Your task to perform on an android device: toggle notification dots Image 0: 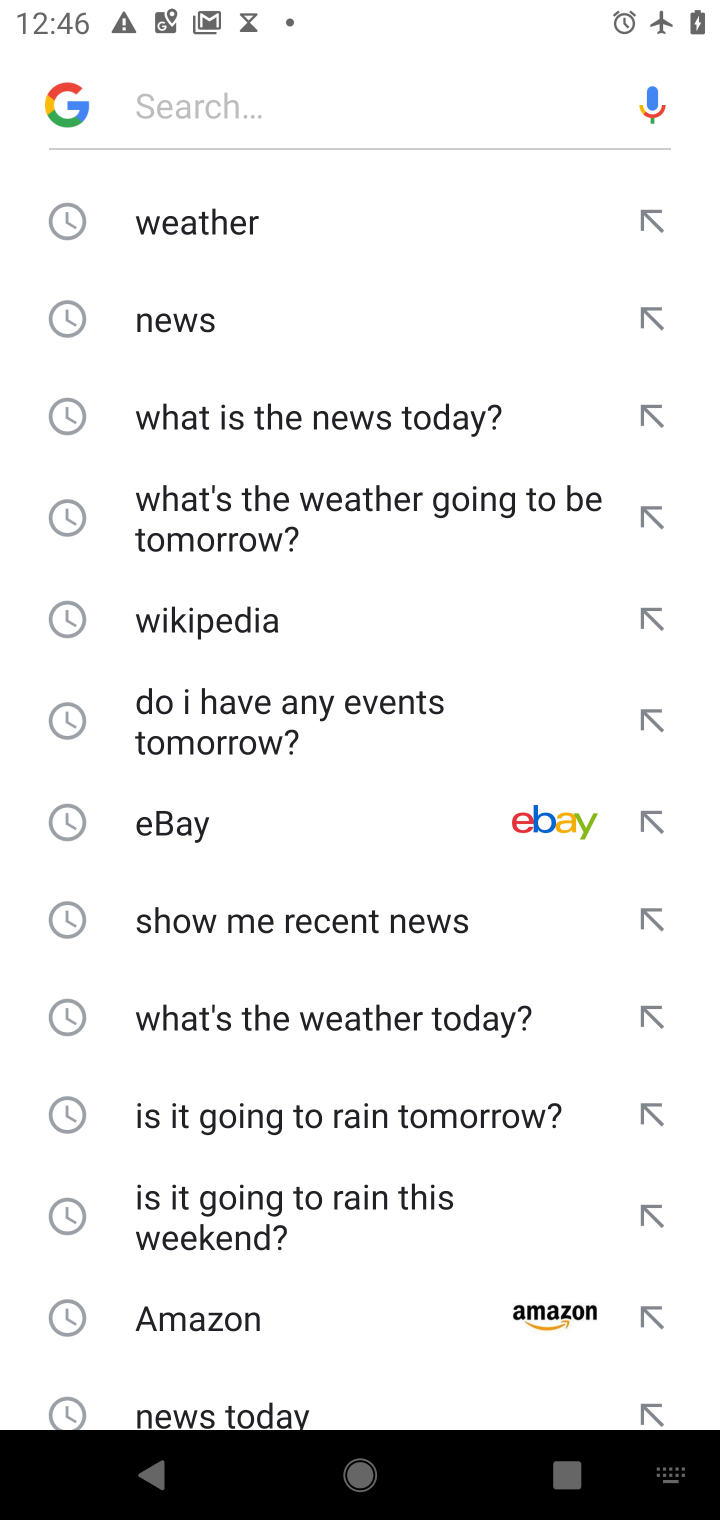
Step 0: press home button
Your task to perform on an android device: toggle notification dots Image 1: 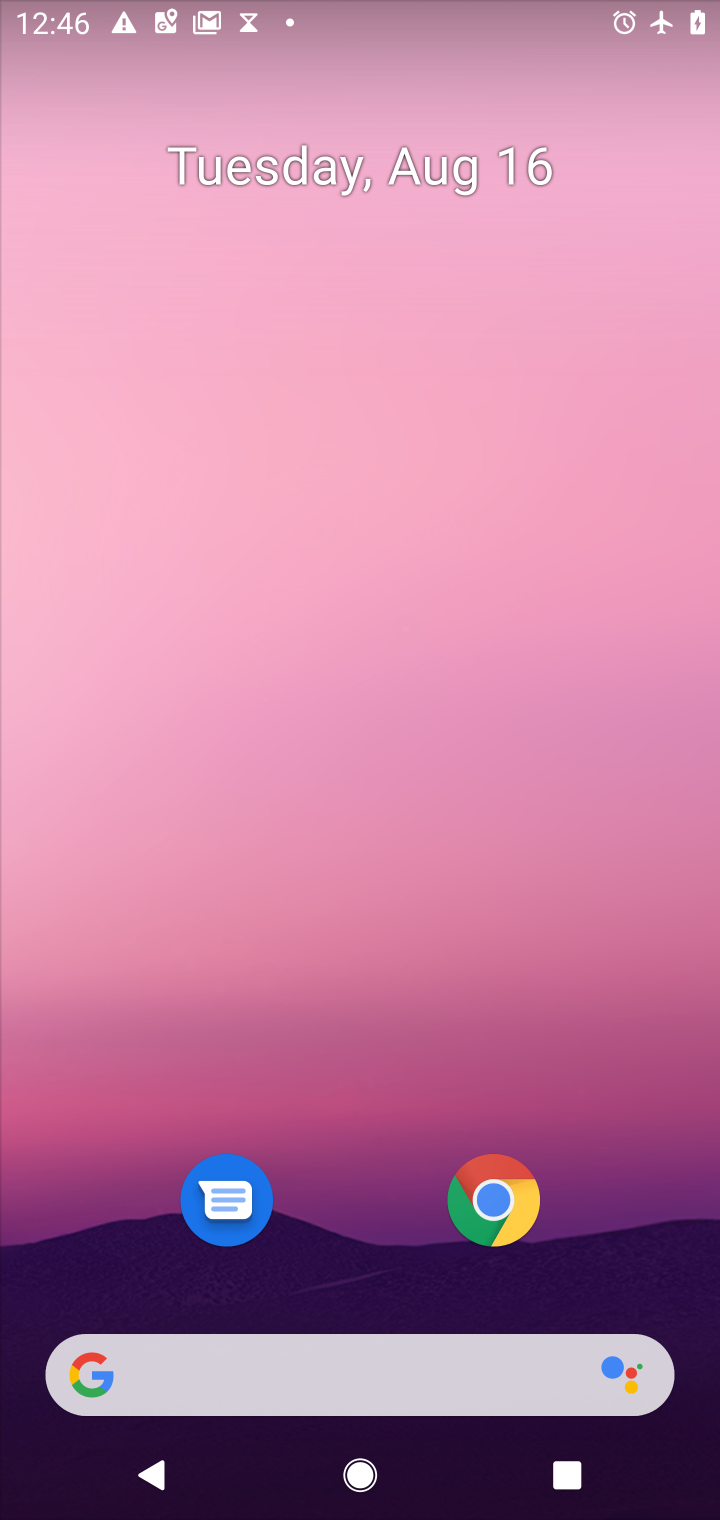
Step 1: drag from (359, 1210) to (325, 322)
Your task to perform on an android device: toggle notification dots Image 2: 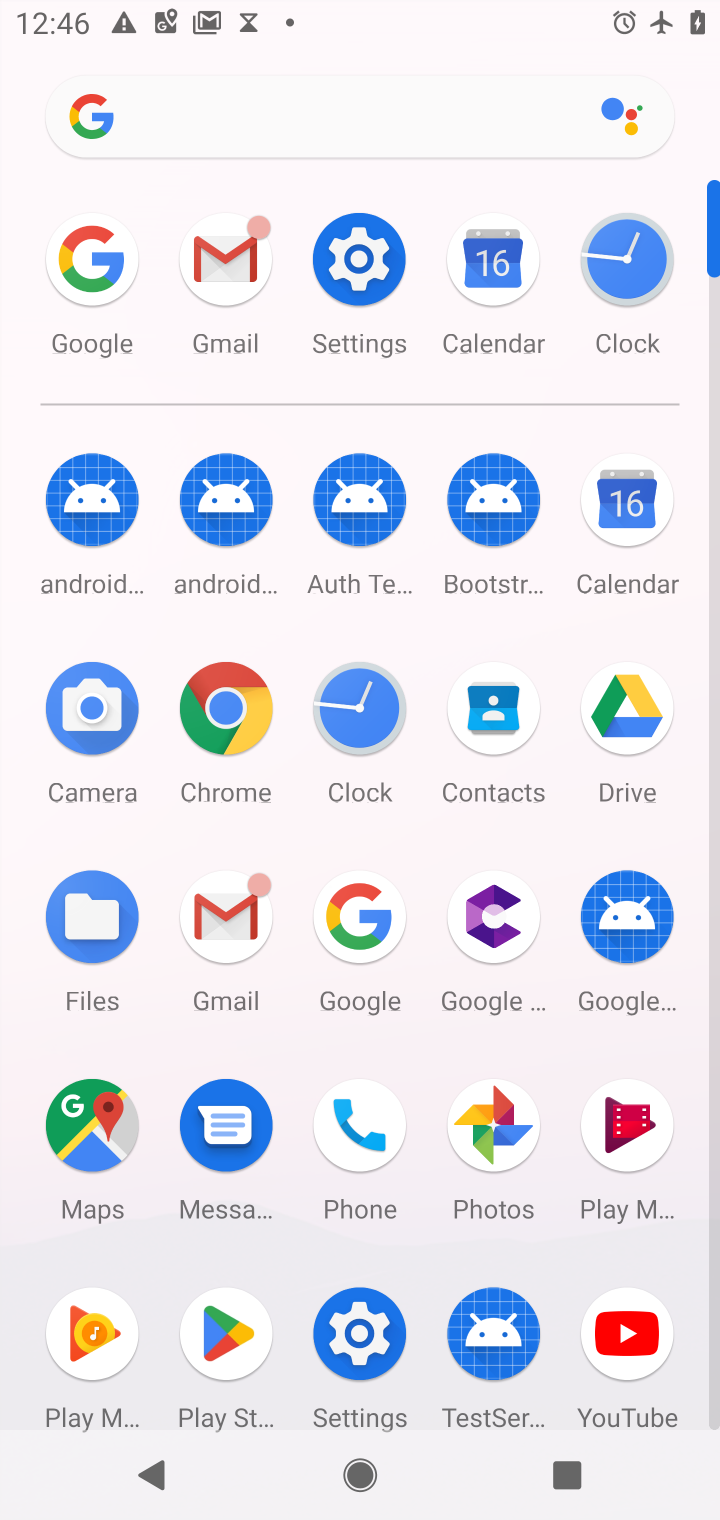
Step 2: click (328, 308)
Your task to perform on an android device: toggle notification dots Image 3: 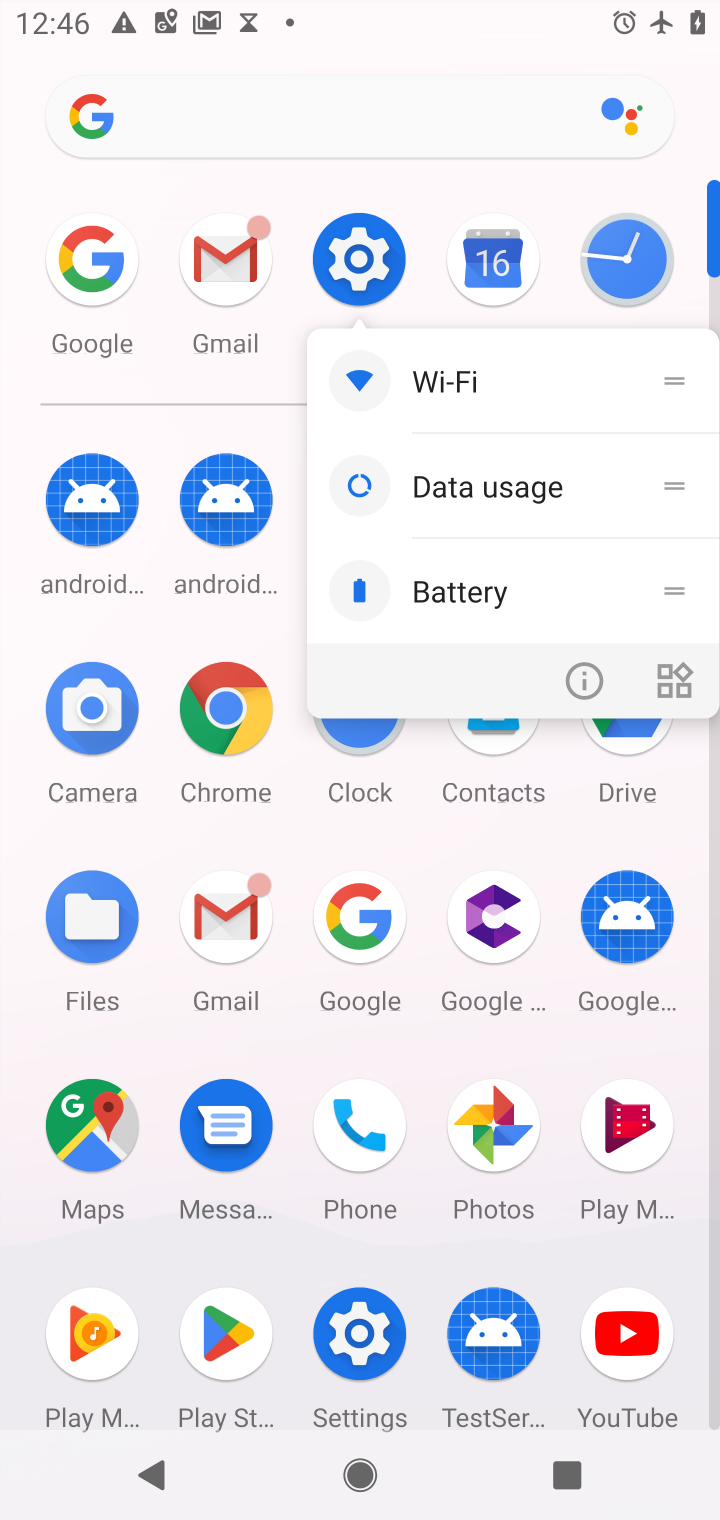
Step 3: click (340, 287)
Your task to perform on an android device: toggle notification dots Image 4: 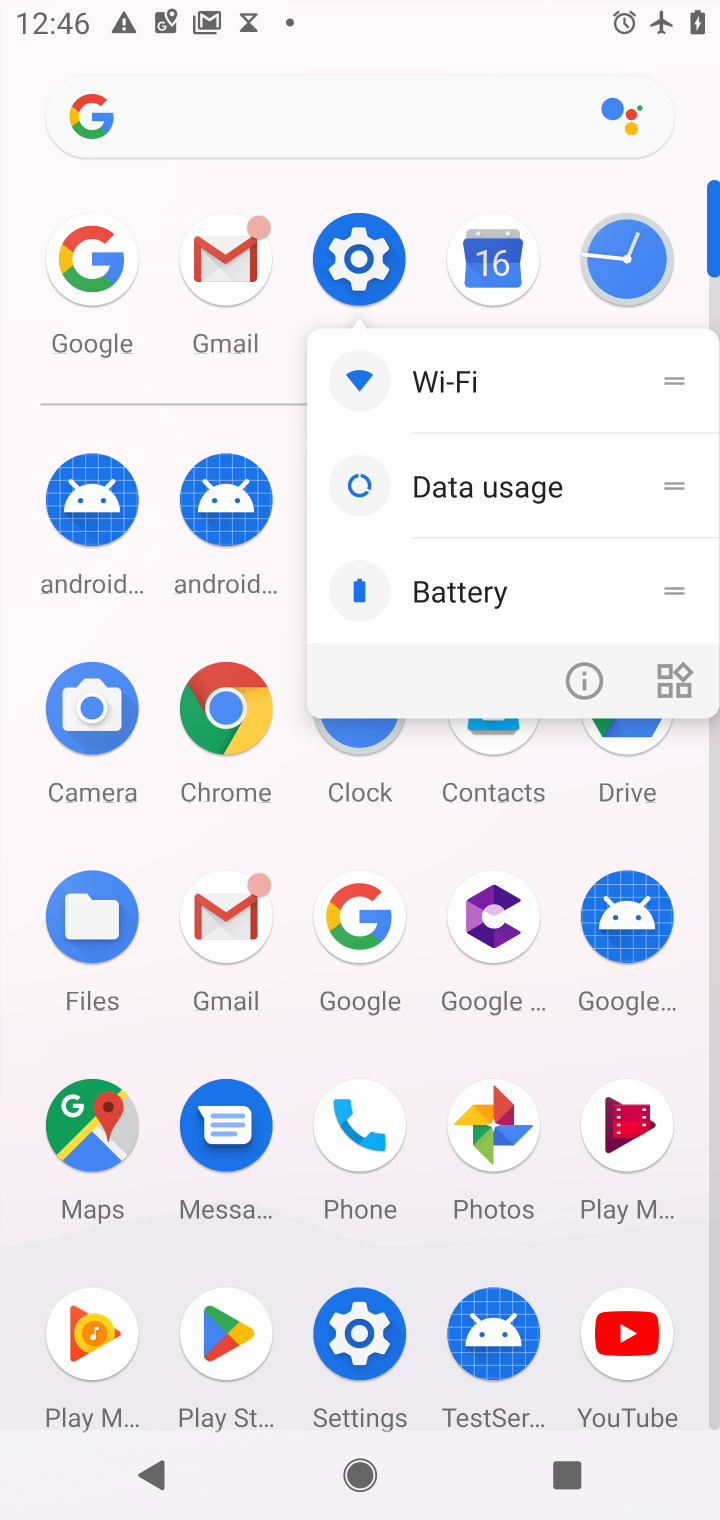
Step 4: click (343, 227)
Your task to perform on an android device: toggle notification dots Image 5: 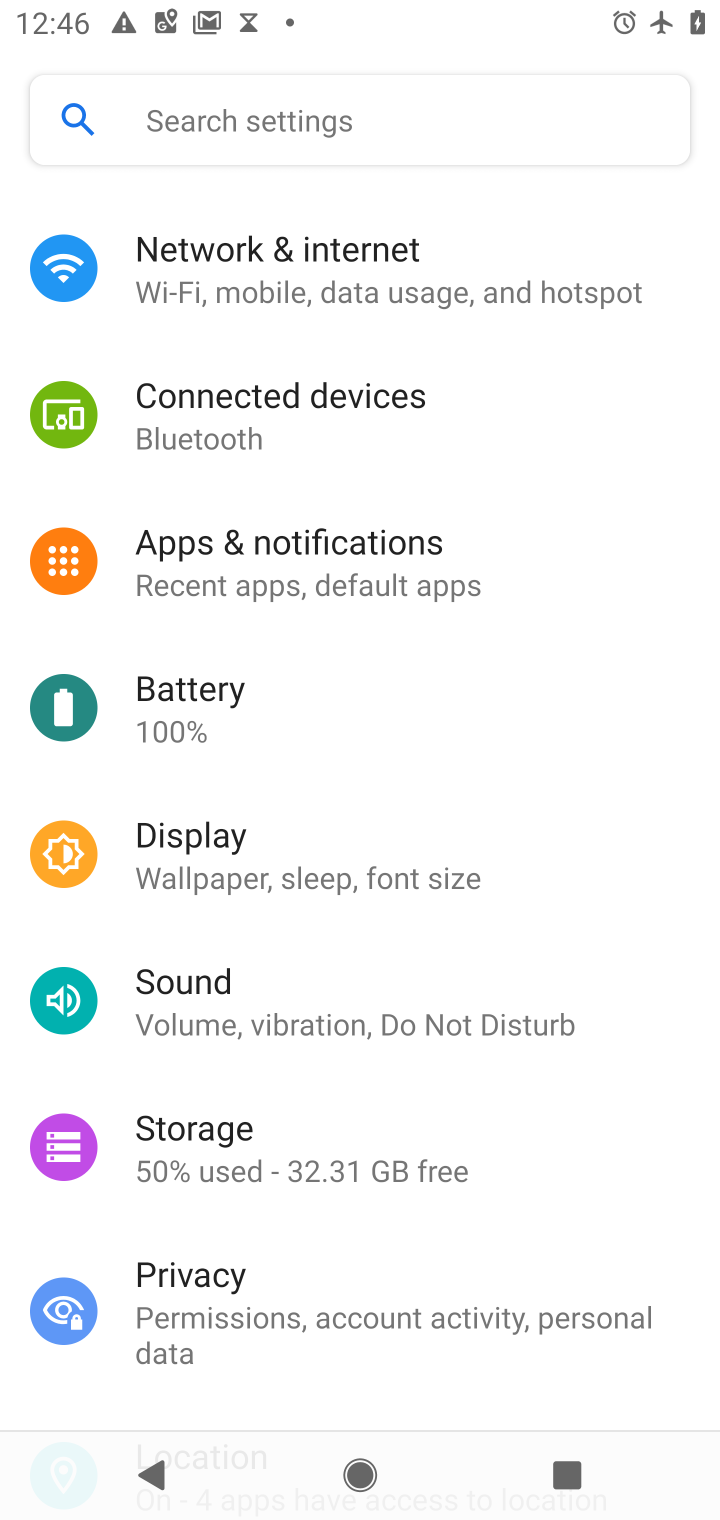
Step 5: click (332, 578)
Your task to perform on an android device: toggle notification dots Image 6: 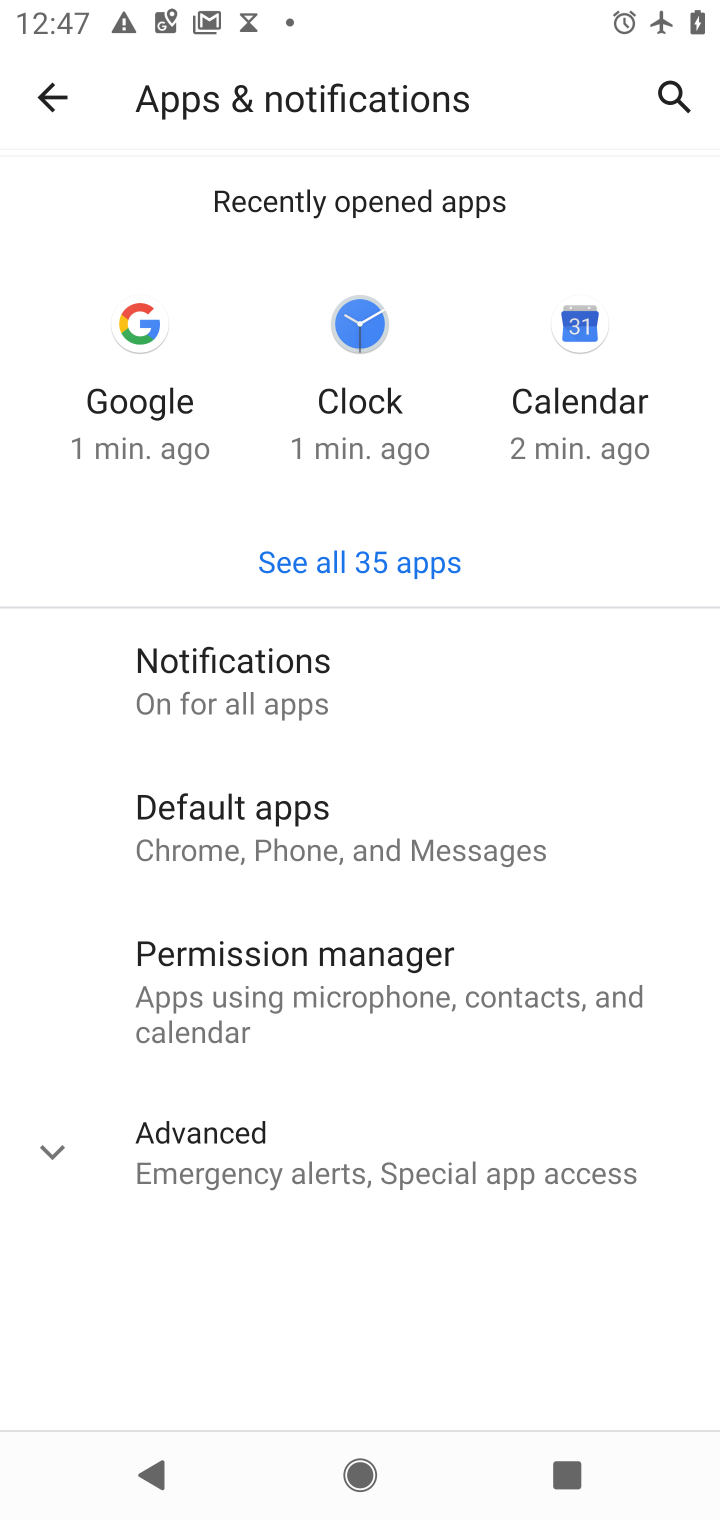
Step 6: click (237, 696)
Your task to perform on an android device: toggle notification dots Image 7: 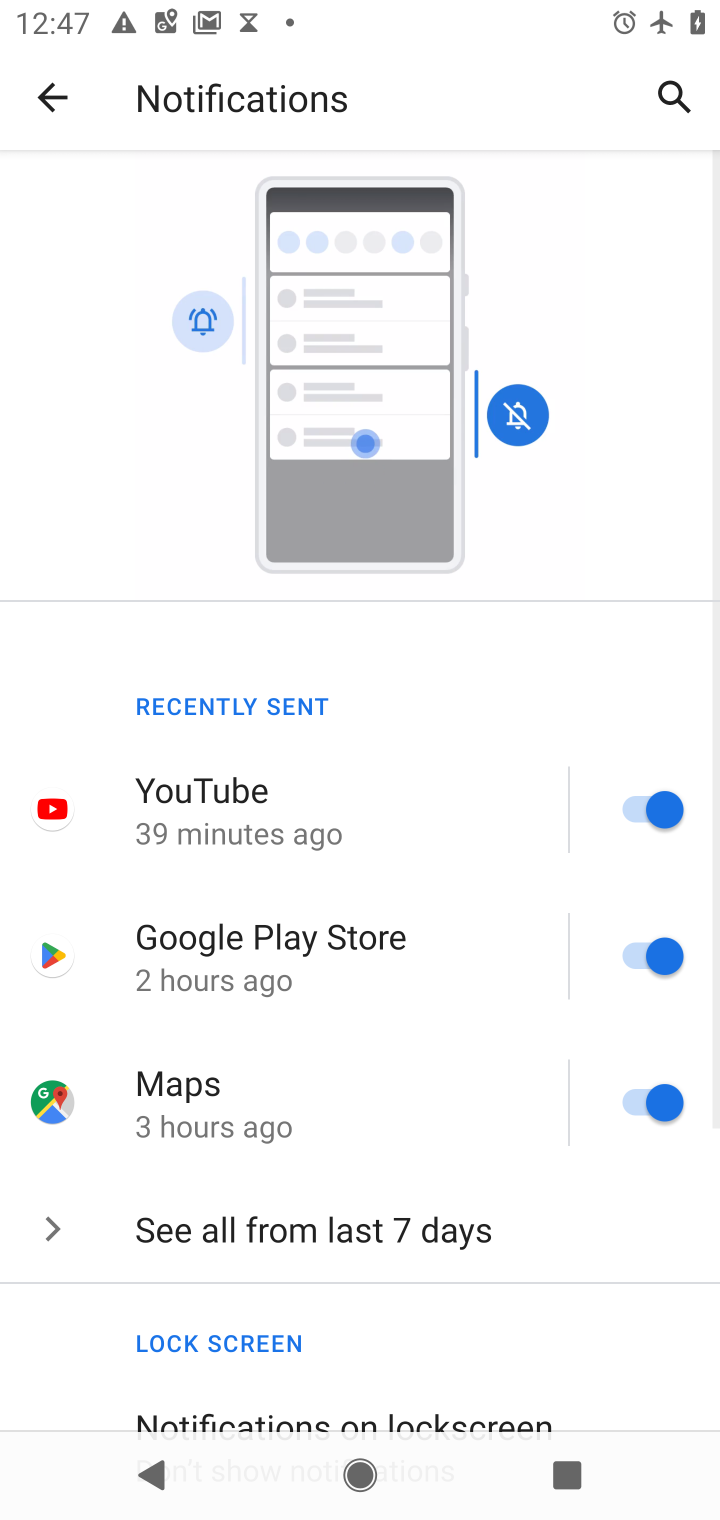
Step 7: drag from (456, 964) to (483, 622)
Your task to perform on an android device: toggle notification dots Image 8: 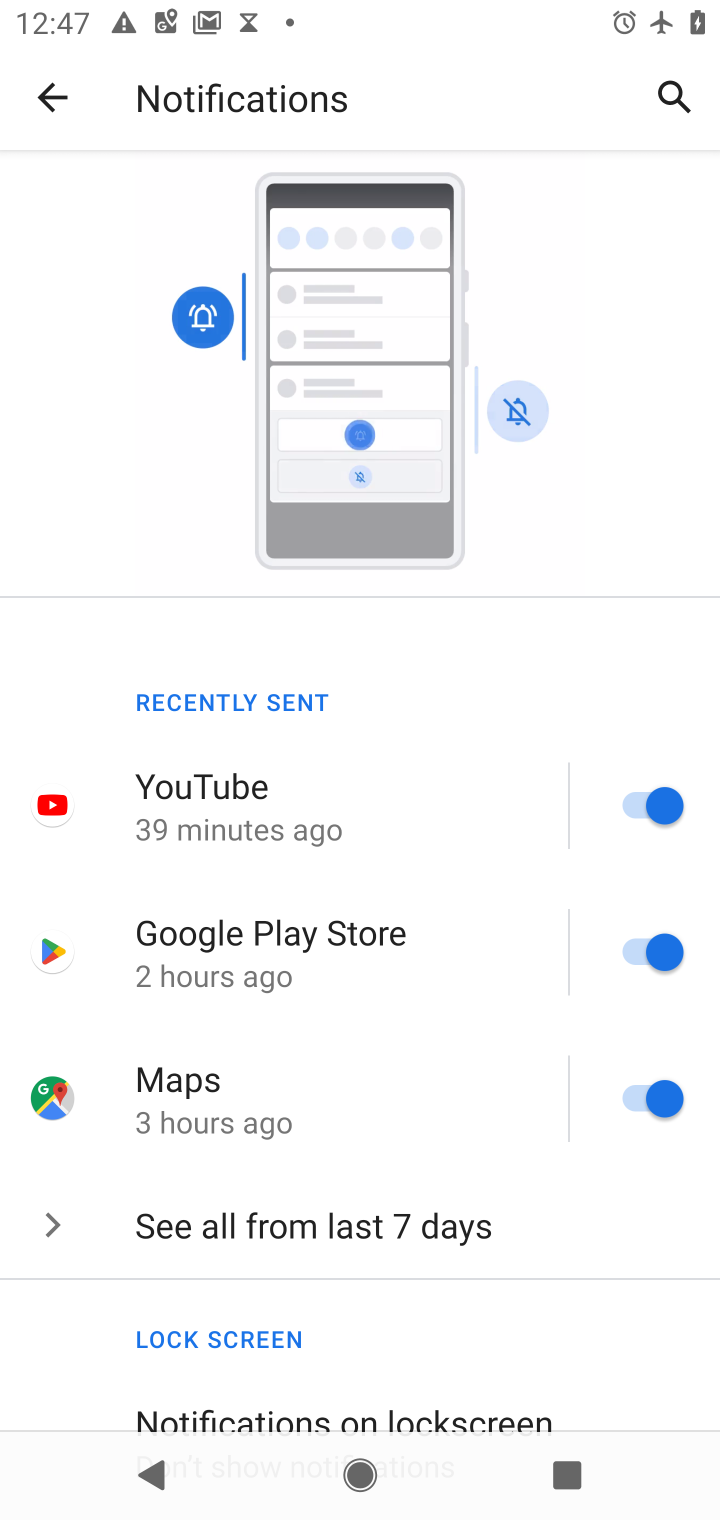
Step 8: drag from (455, 1115) to (496, 605)
Your task to perform on an android device: toggle notification dots Image 9: 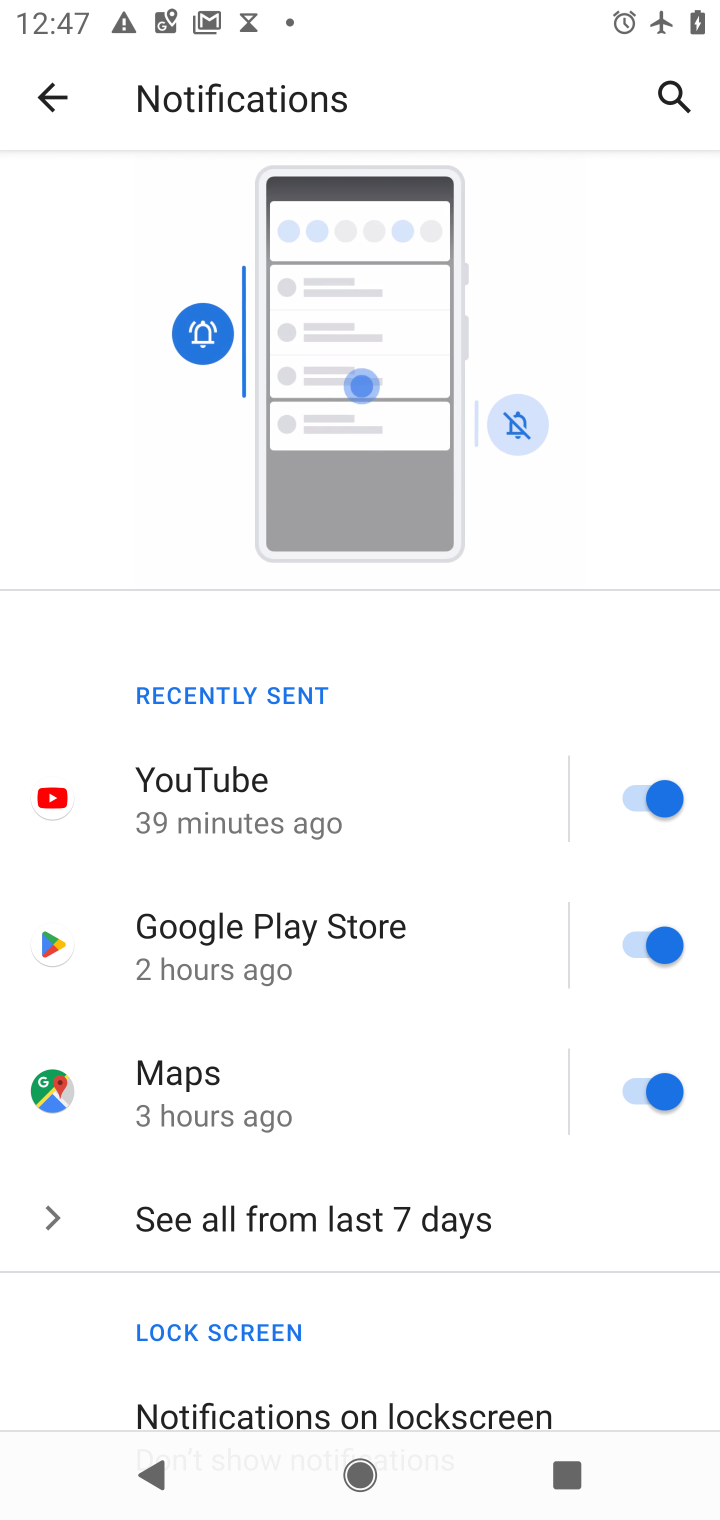
Step 9: drag from (474, 1204) to (480, 513)
Your task to perform on an android device: toggle notification dots Image 10: 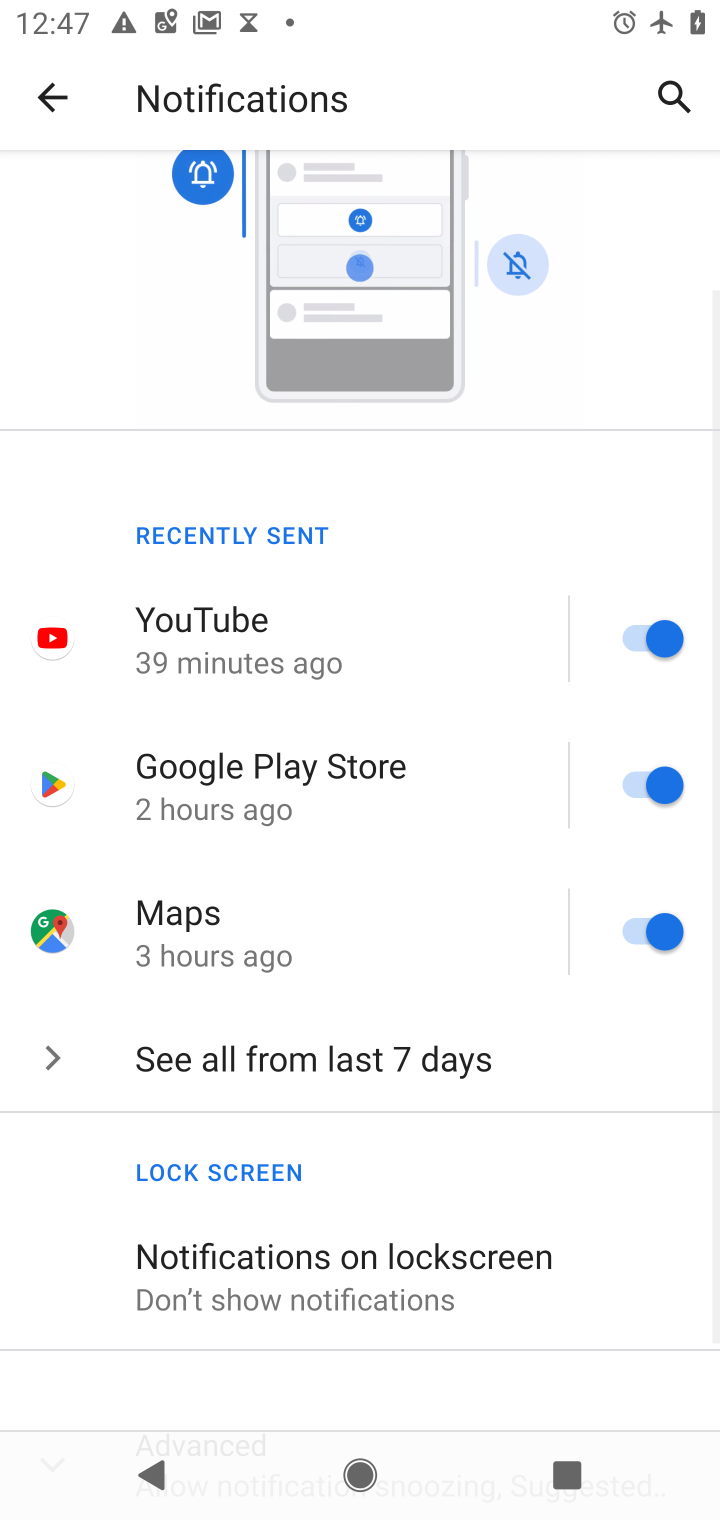
Step 10: drag from (456, 1352) to (453, 593)
Your task to perform on an android device: toggle notification dots Image 11: 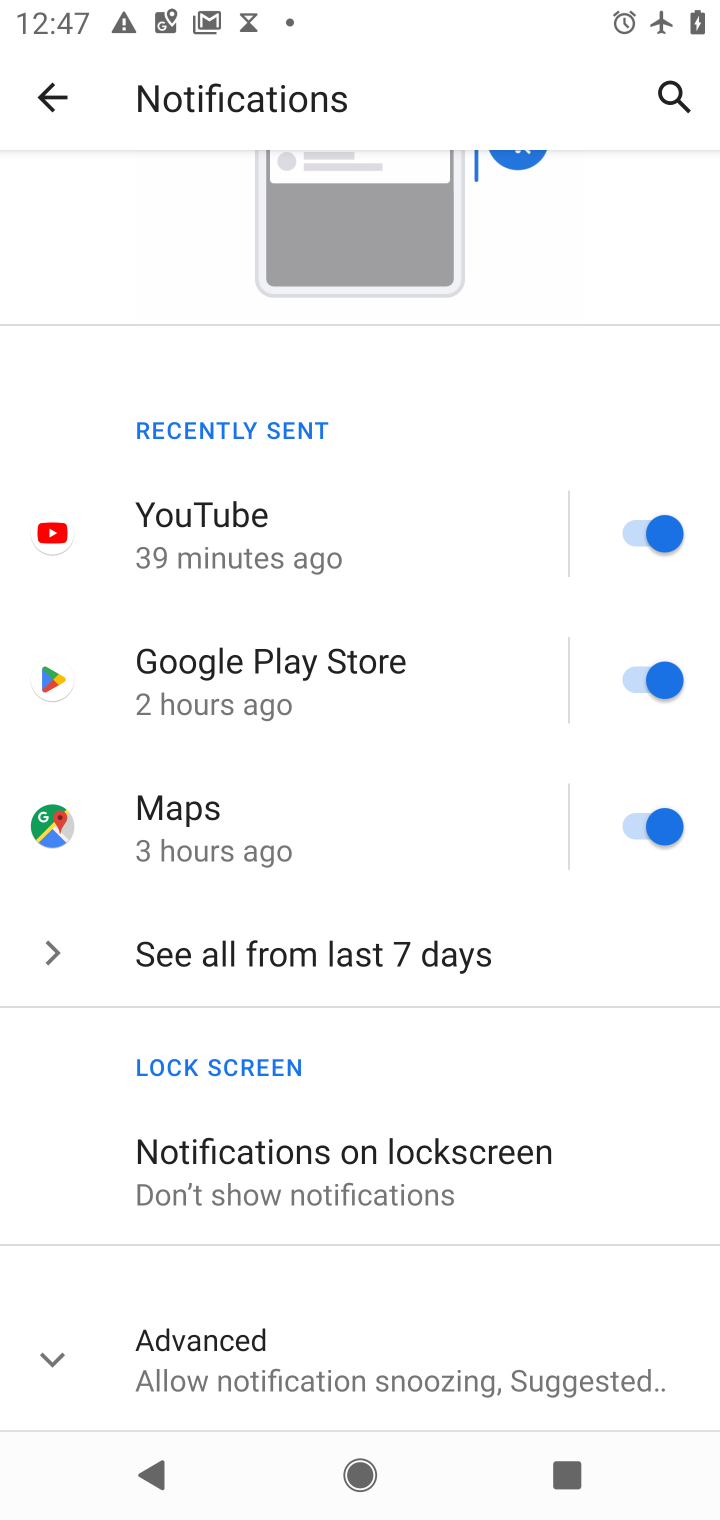
Step 11: click (419, 1382)
Your task to perform on an android device: toggle notification dots Image 12: 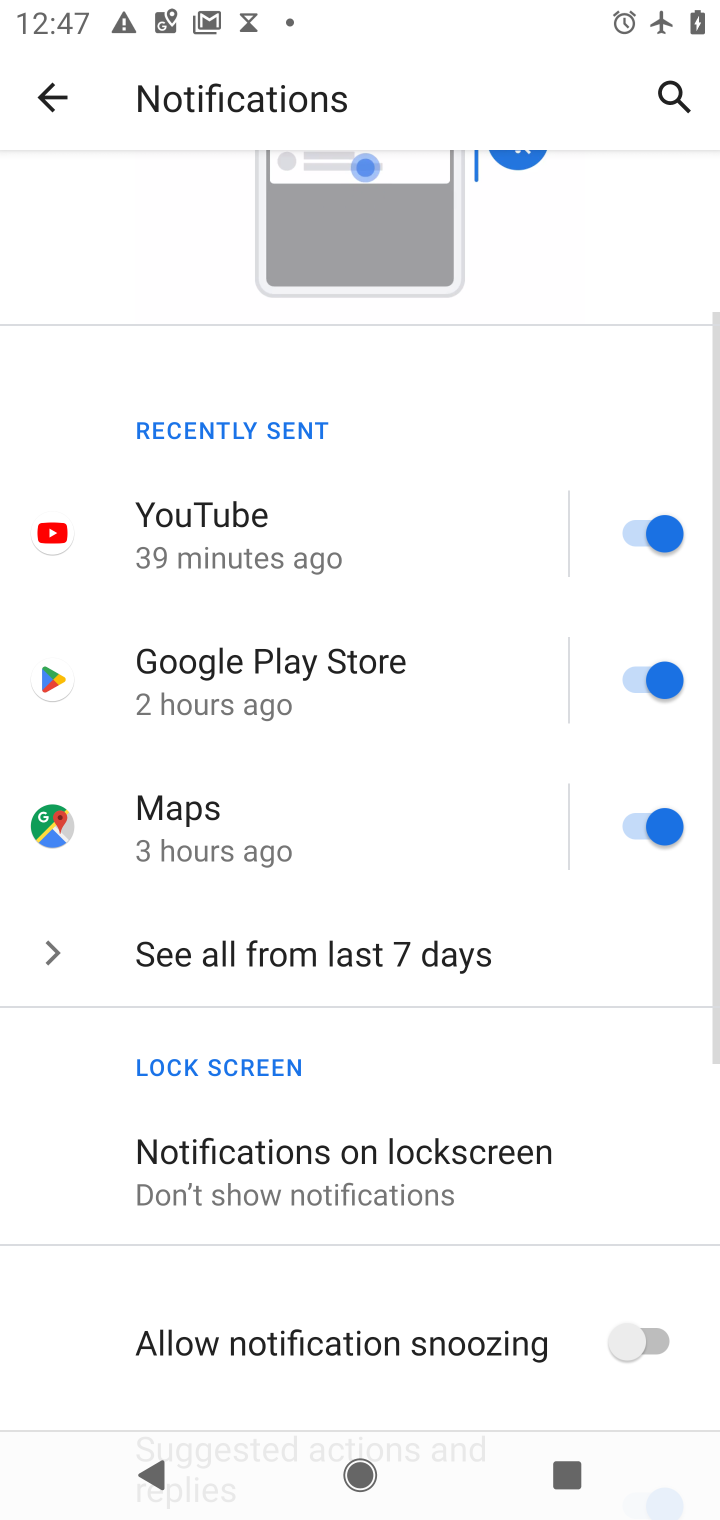
Step 12: drag from (395, 962) to (395, 408)
Your task to perform on an android device: toggle notification dots Image 13: 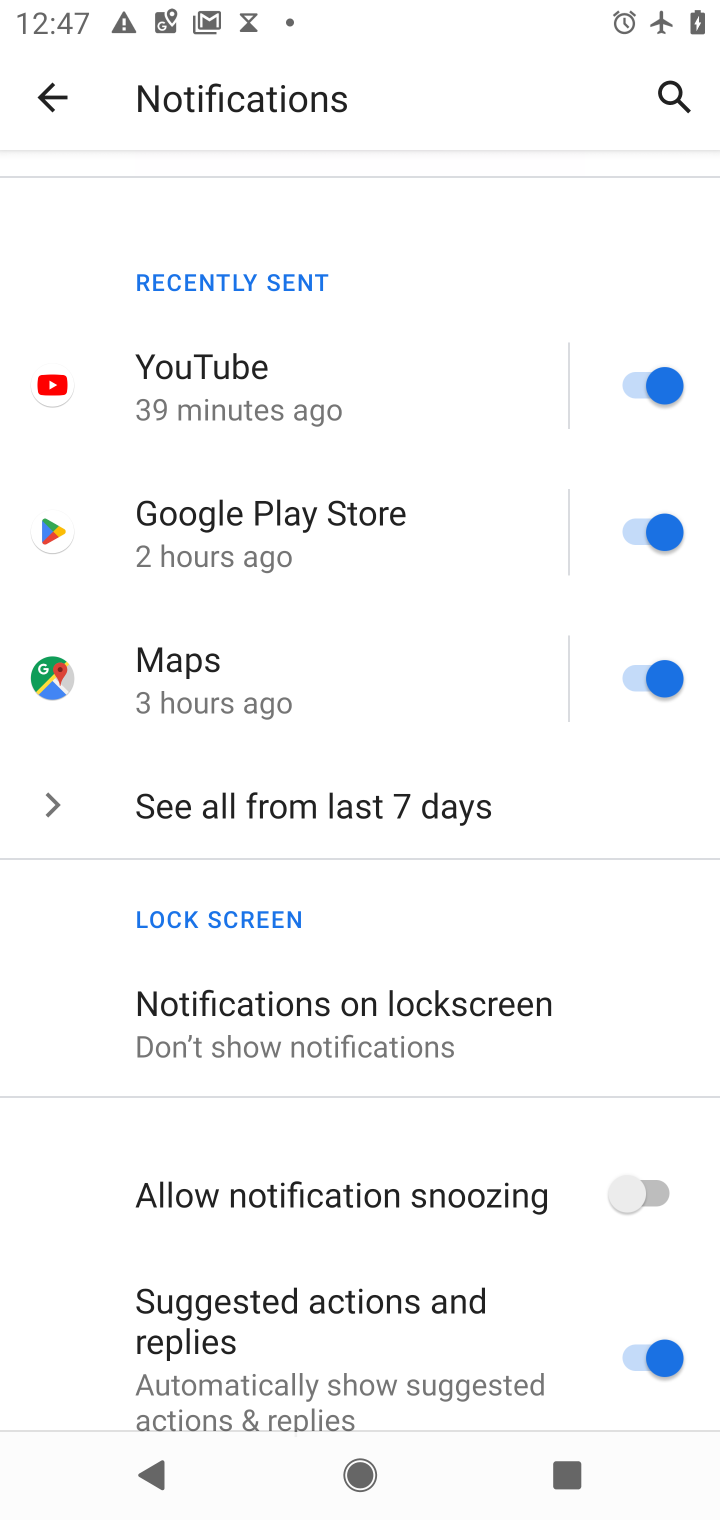
Step 13: drag from (568, 1316) to (548, 593)
Your task to perform on an android device: toggle notification dots Image 14: 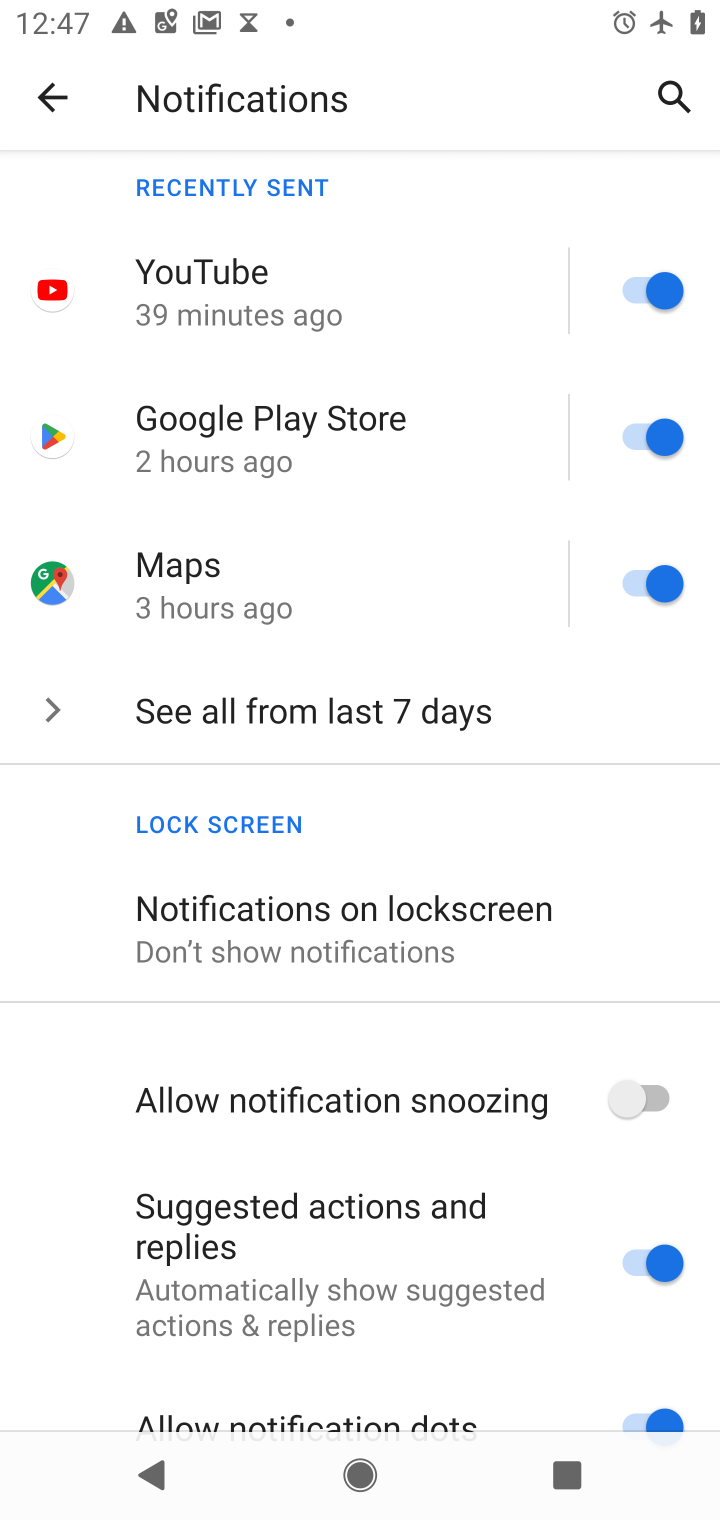
Step 14: drag from (581, 898) to (581, 673)
Your task to perform on an android device: toggle notification dots Image 15: 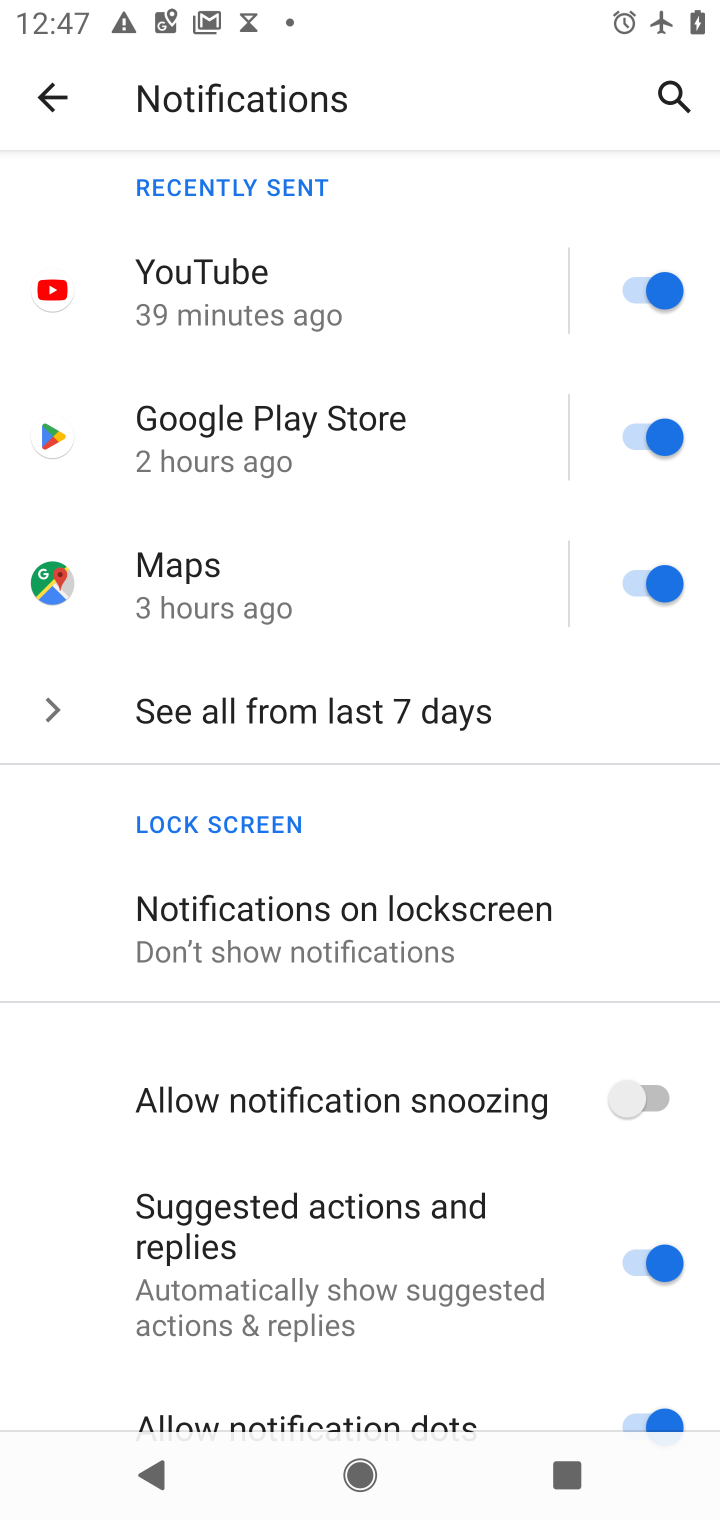
Step 15: drag from (465, 1315) to (437, 710)
Your task to perform on an android device: toggle notification dots Image 16: 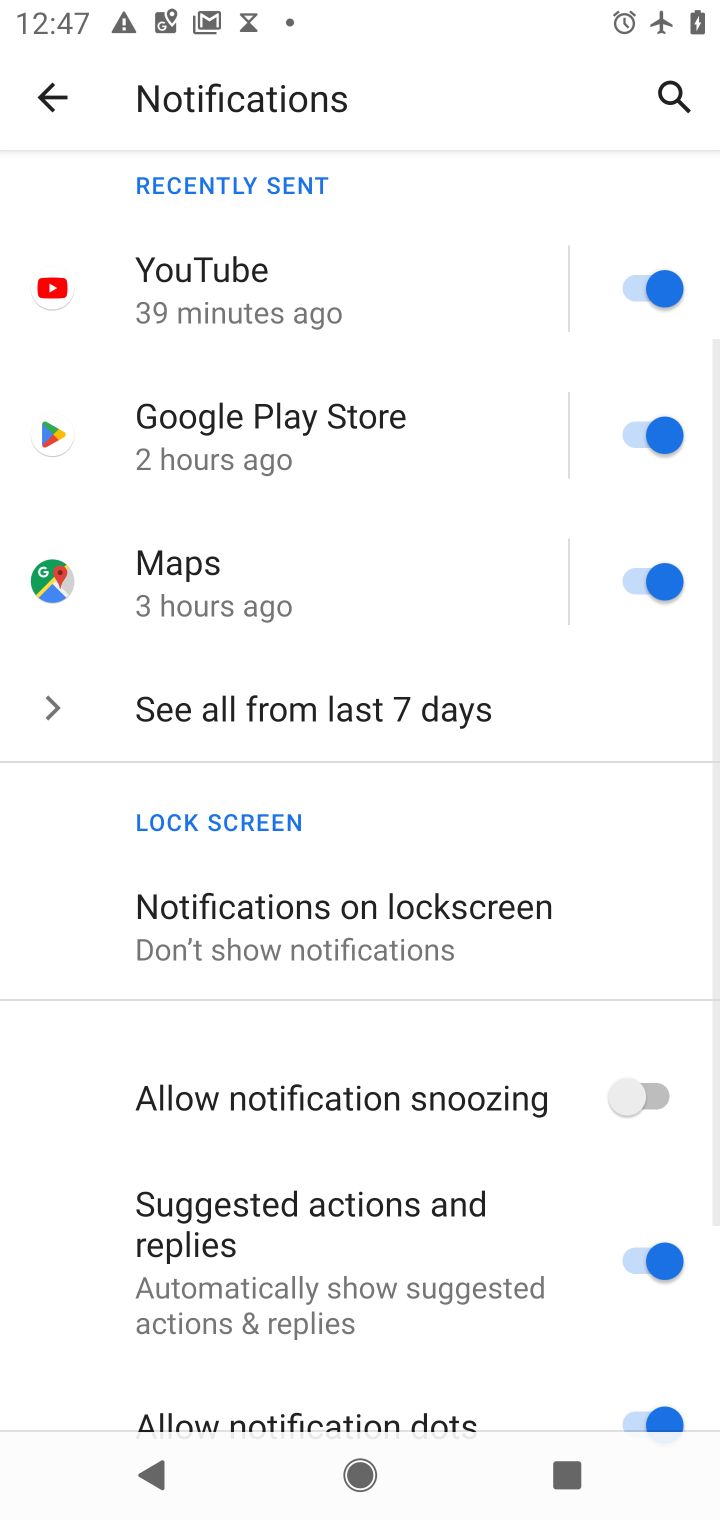
Step 16: drag from (505, 1358) to (464, 713)
Your task to perform on an android device: toggle notification dots Image 17: 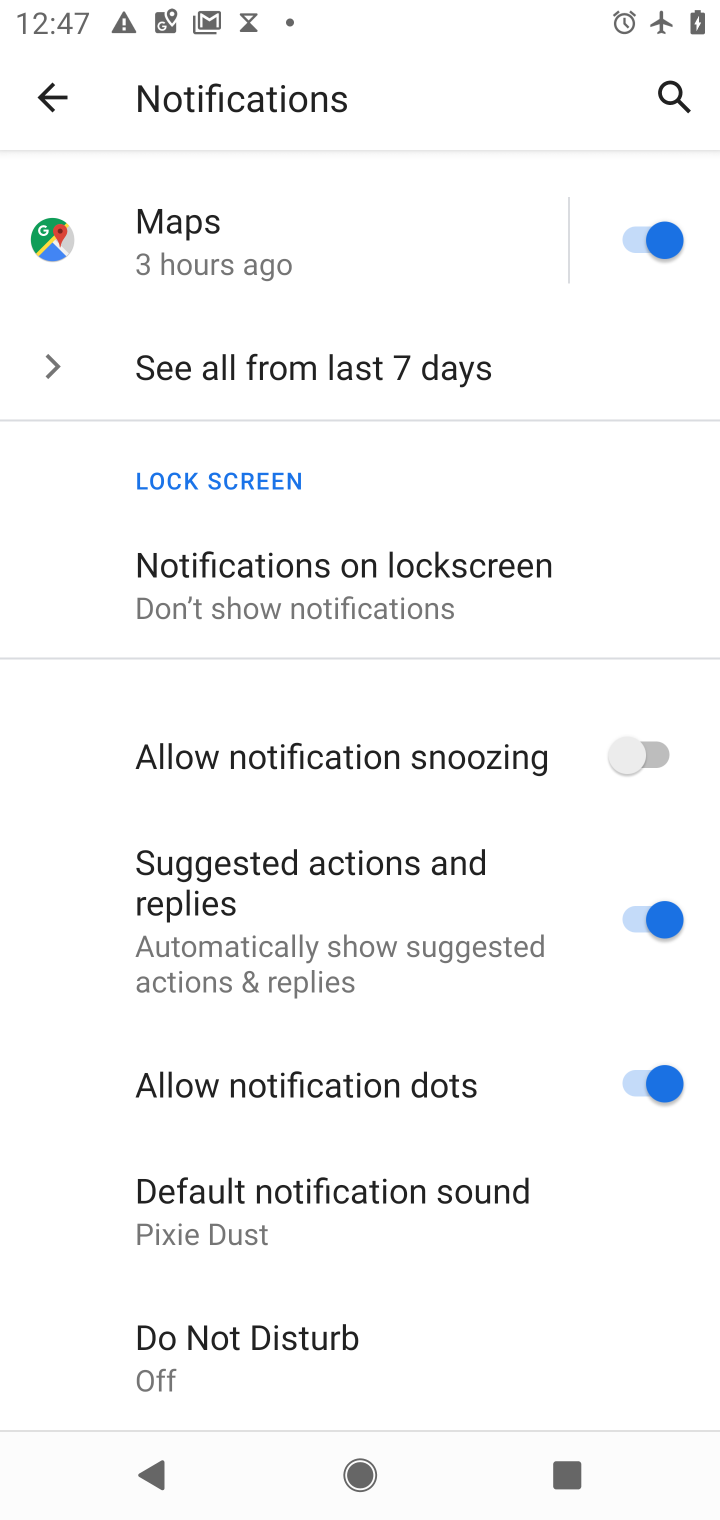
Step 17: click (637, 1090)
Your task to perform on an android device: toggle notification dots Image 18: 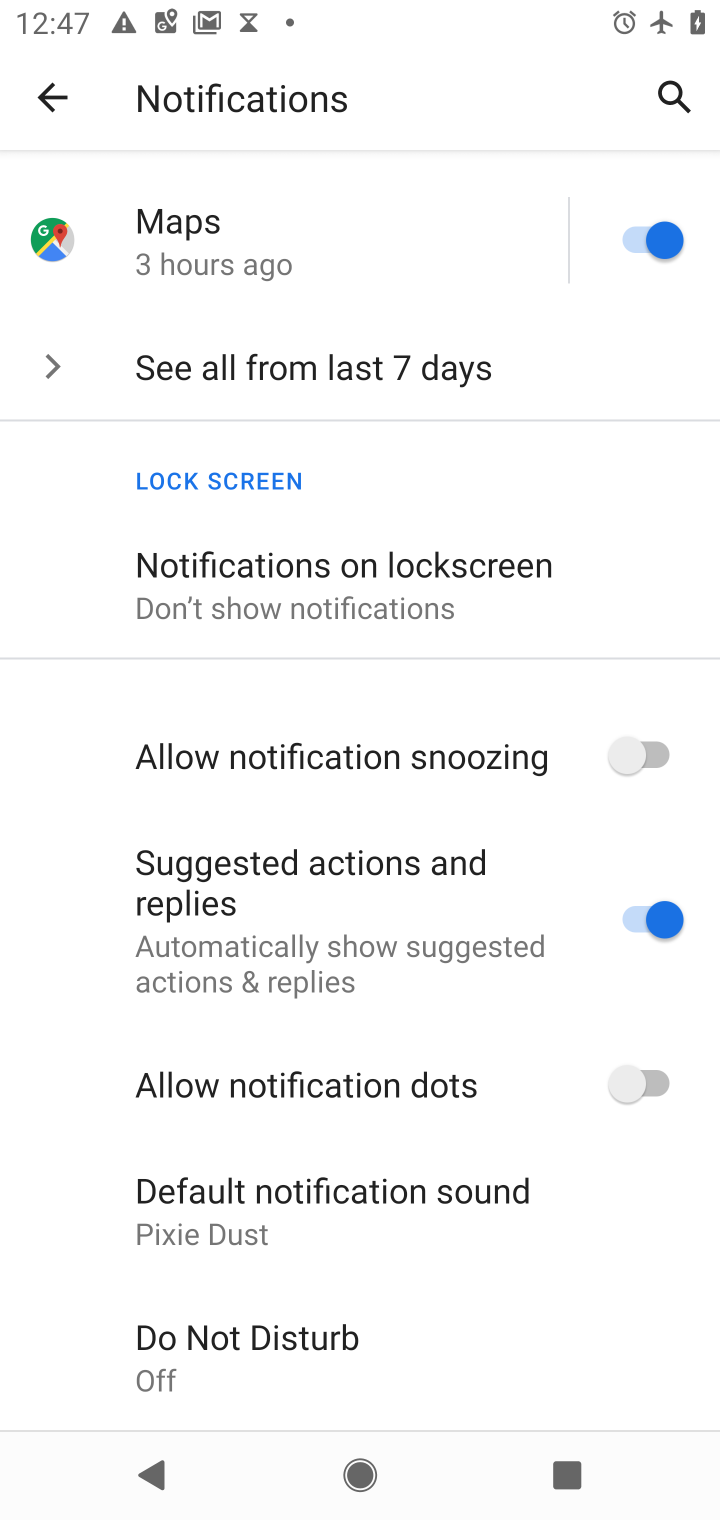
Step 18: click (640, 1095)
Your task to perform on an android device: toggle notification dots Image 19: 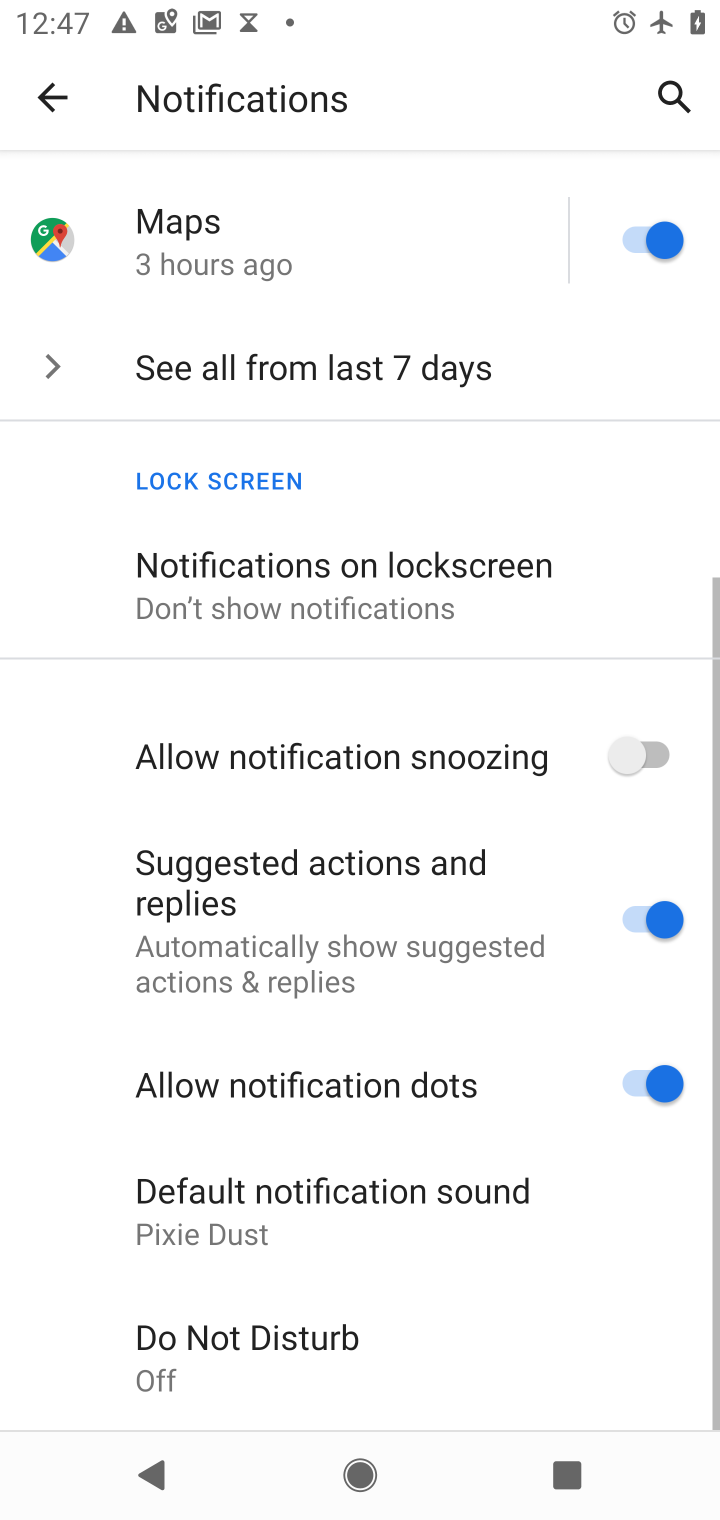
Step 19: task complete